Your task to perform on an android device: turn off location Image 0: 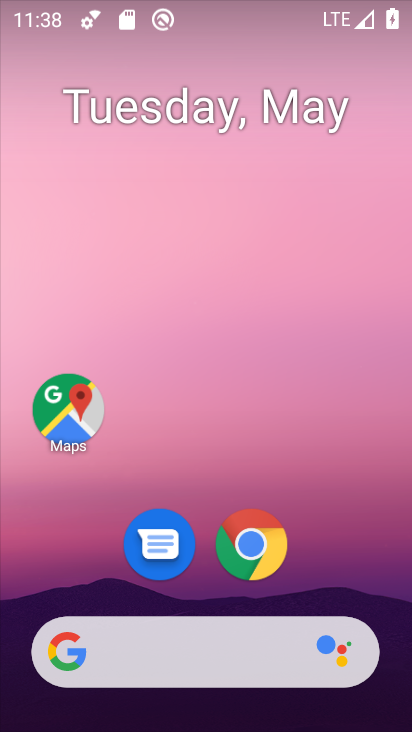
Step 0: drag from (210, 591) to (178, 294)
Your task to perform on an android device: turn off location Image 1: 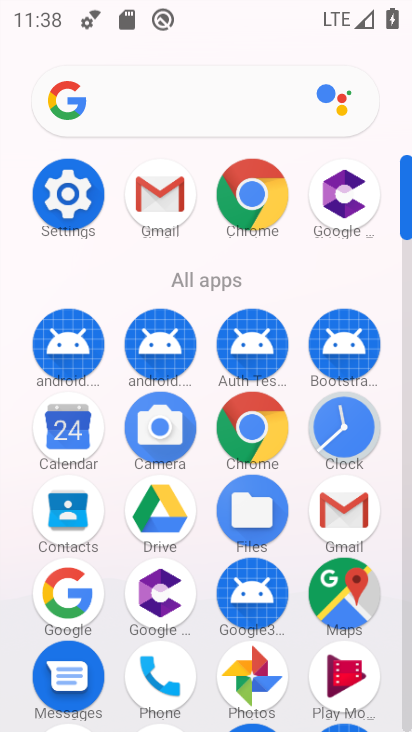
Step 1: click (76, 183)
Your task to perform on an android device: turn off location Image 2: 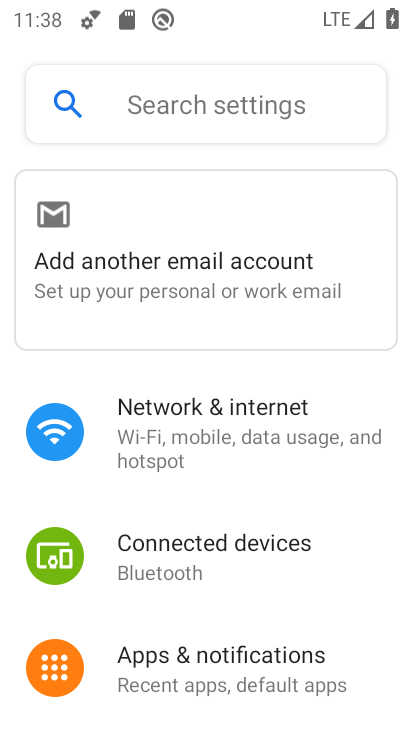
Step 2: drag from (188, 546) to (198, 202)
Your task to perform on an android device: turn off location Image 3: 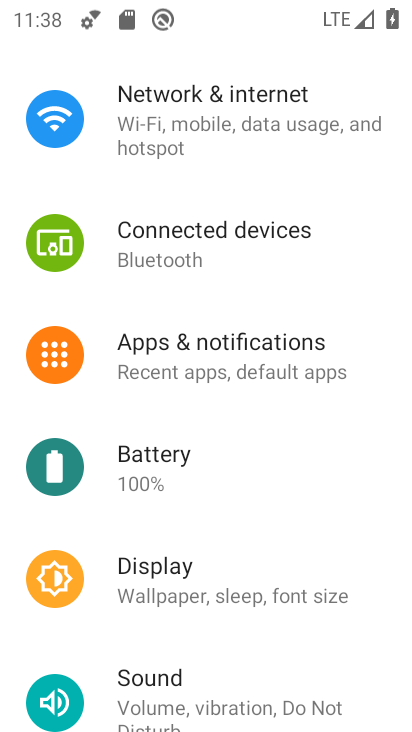
Step 3: drag from (191, 643) to (198, 218)
Your task to perform on an android device: turn off location Image 4: 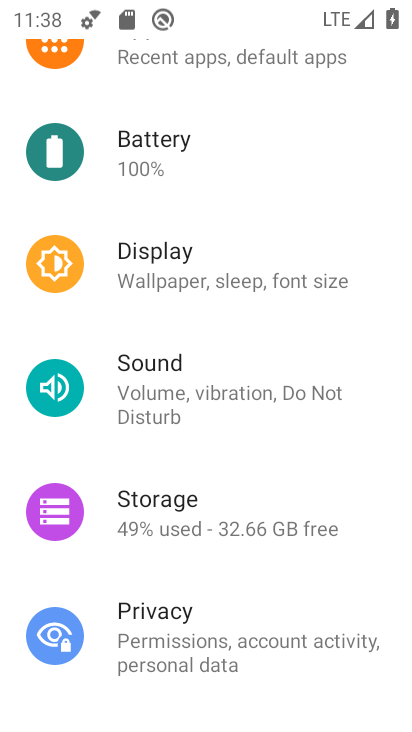
Step 4: drag from (206, 593) to (197, 207)
Your task to perform on an android device: turn off location Image 5: 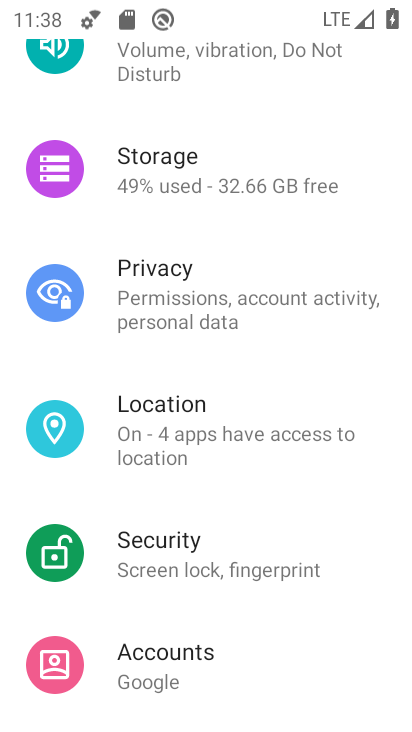
Step 5: click (184, 441)
Your task to perform on an android device: turn off location Image 6: 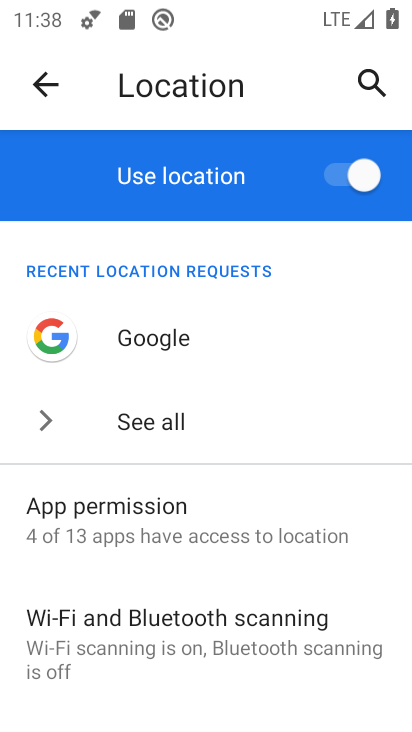
Step 6: click (346, 179)
Your task to perform on an android device: turn off location Image 7: 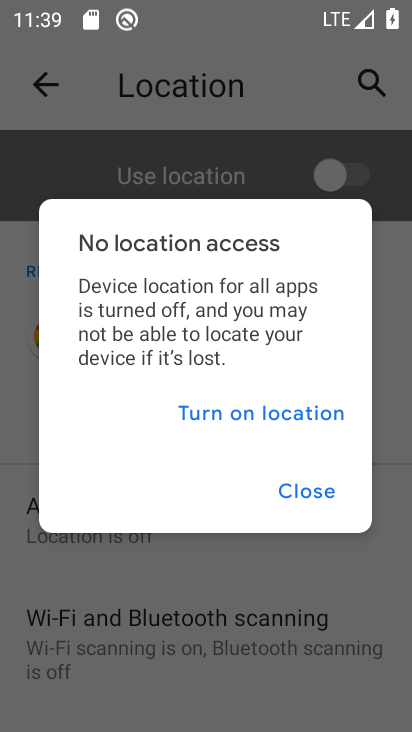
Step 7: click (304, 486)
Your task to perform on an android device: turn off location Image 8: 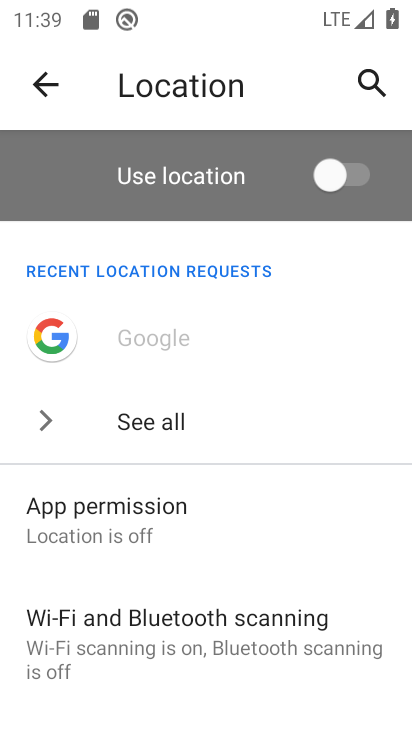
Step 8: task complete